Your task to perform on an android device: Open Youtube and go to the subscriptions tab Image 0: 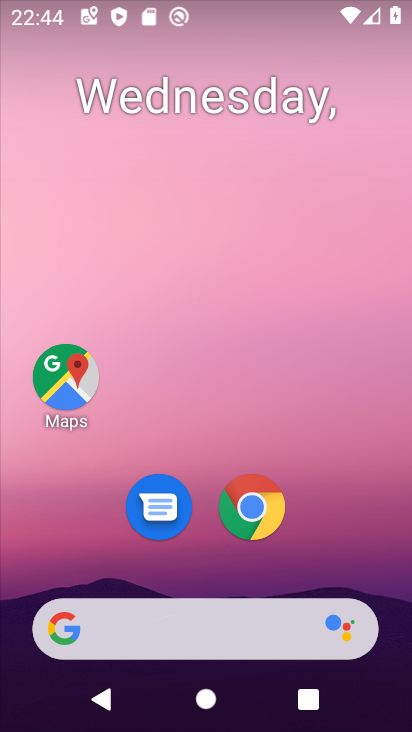
Step 0: drag from (327, 587) to (301, 171)
Your task to perform on an android device: Open Youtube and go to the subscriptions tab Image 1: 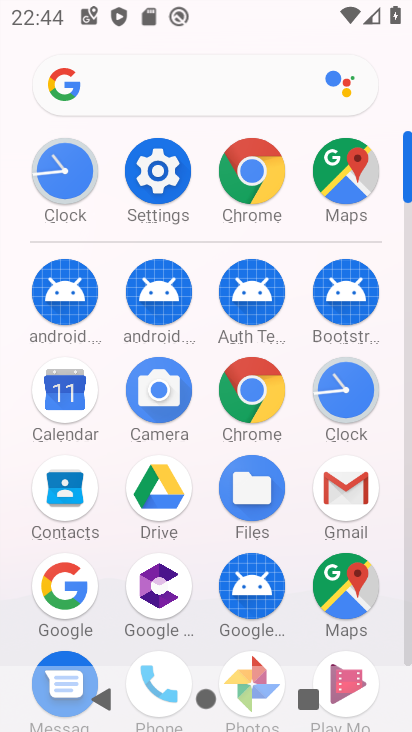
Step 1: drag from (283, 556) to (285, 114)
Your task to perform on an android device: Open Youtube and go to the subscriptions tab Image 2: 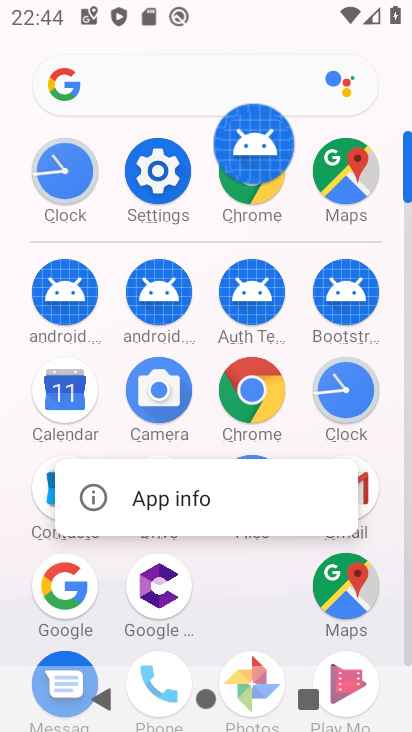
Step 2: drag from (226, 668) to (277, 216)
Your task to perform on an android device: Open Youtube and go to the subscriptions tab Image 3: 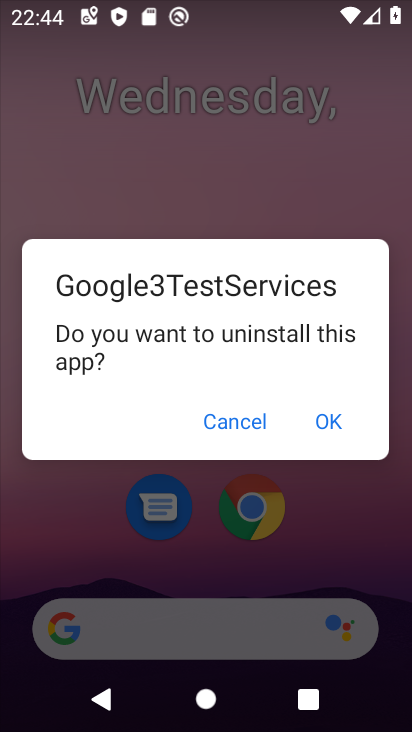
Step 3: drag from (294, 554) to (314, 214)
Your task to perform on an android device: Open Youtube and go to the subscriptions tab Image 4: 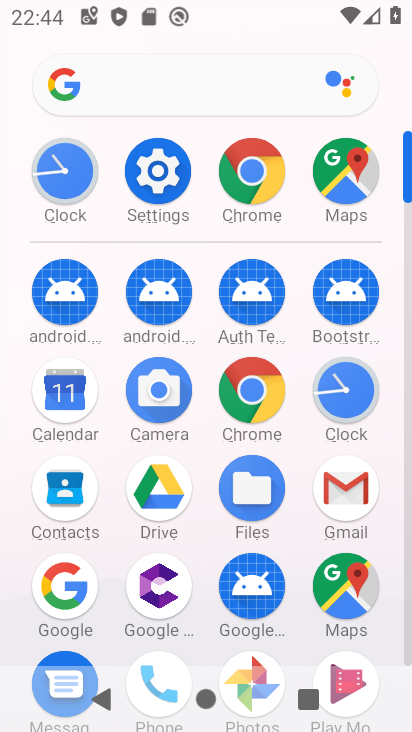
Step 4: drag from (222, 655) to (273, 186)
Your task to perform on an android device: Open Youtube and go to the subscriptions tab Image 5: 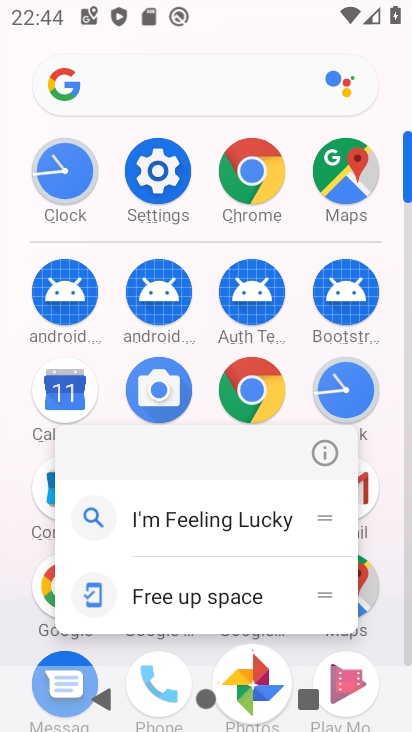
Step 5: drag from (253, 519) to (287, 237)
Your task to perform on an android device: Open Youtube and go to the subscriptions tab Image 6: 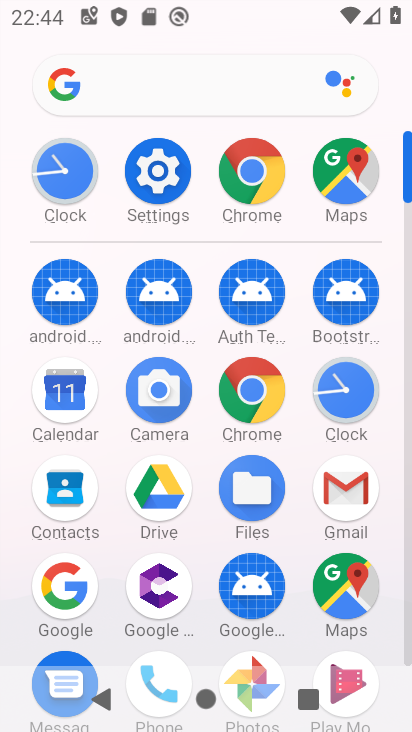
Step 6: drag from (250, 411) to (274, 175)
Your task to perform on an android device: Open Youtube and go to the subscriptions tab Image 7: 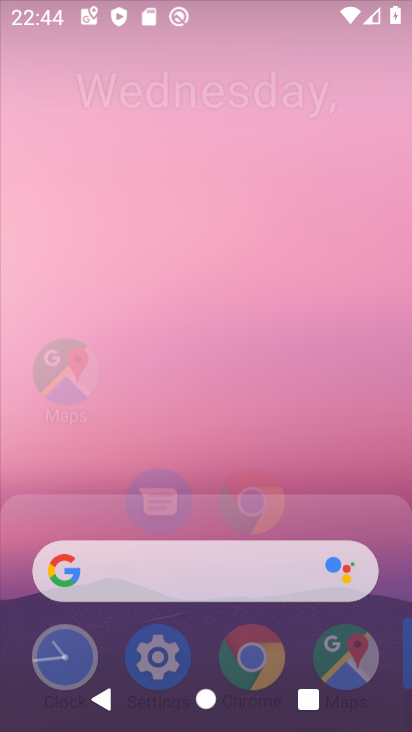
Step 7: drag from (277, 370) to (294, 174)
Your task to perform on an android device: Open Youtube and go to the subscriptions tab Image 8: 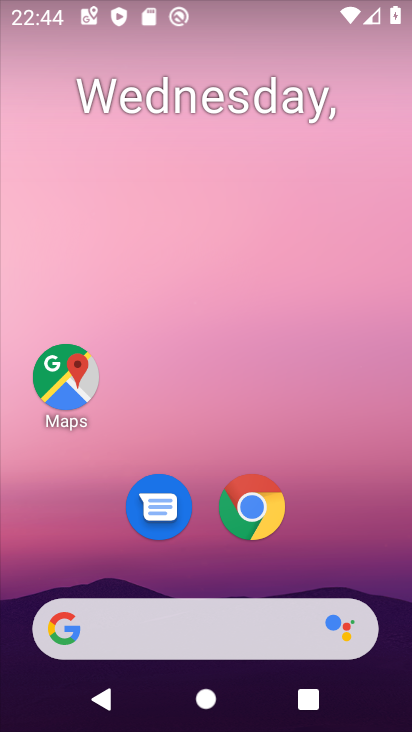
Step 8: drag from (276, 464) to (288, 189)
Your task to perform on an android device: Open Youtube and go to the subscriptions tab Image 9: 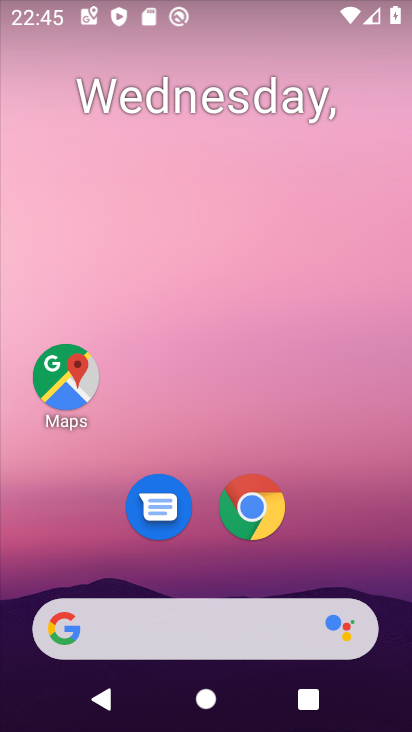
Step 9: drag from (294, 587) to (287, 84)
Your task to perform on an android device: Open Youtube and go to the subscriptions tab Image 10: 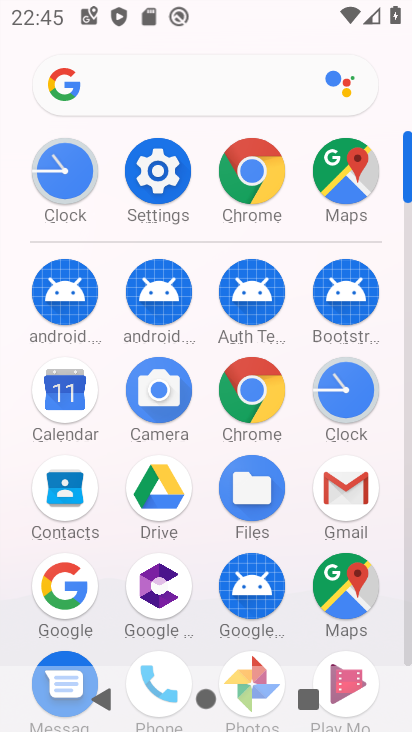
Step 10: drag from (267, 616) to (275, 157)
Your task to perform on an android device: Open Youtube and go to the subscriptions tab Image 11: 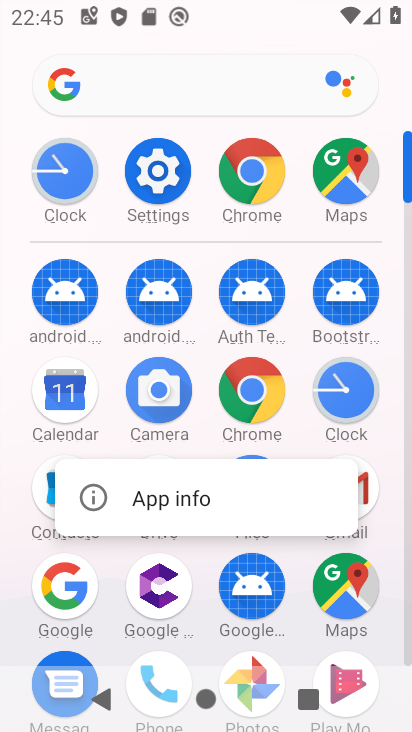
Step 11: drag from (257, 606) to (255, 189)
Your task to perform on an android device: Open Youtube and go to the subscriptions tab Image 12: 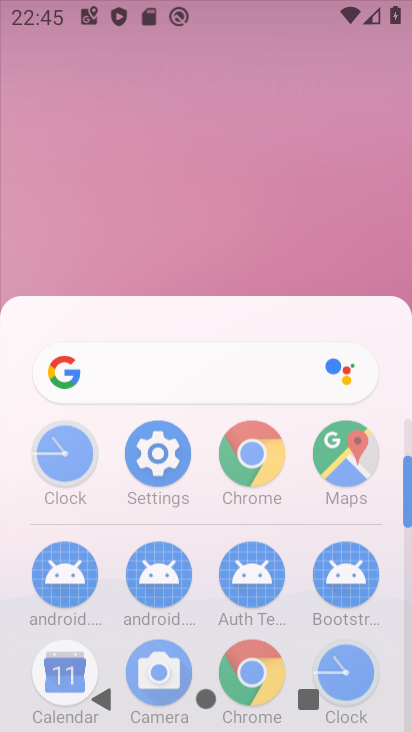
Step 12: drag from (296, 518) to (363, 186)
Your task to perform on an android device: Open Youtube and go to the subscriptions tab Image 13: 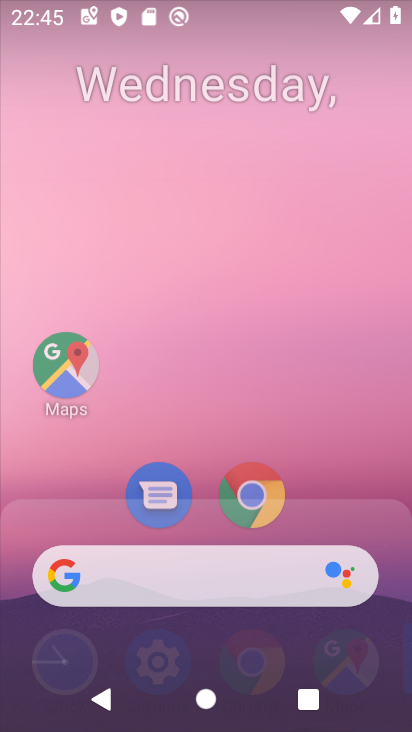
Step 13: drag from (288, 632) to (307, 267)
Your task to perform on an android device: Open Youtube and go to the subscriptions tab Image 14: 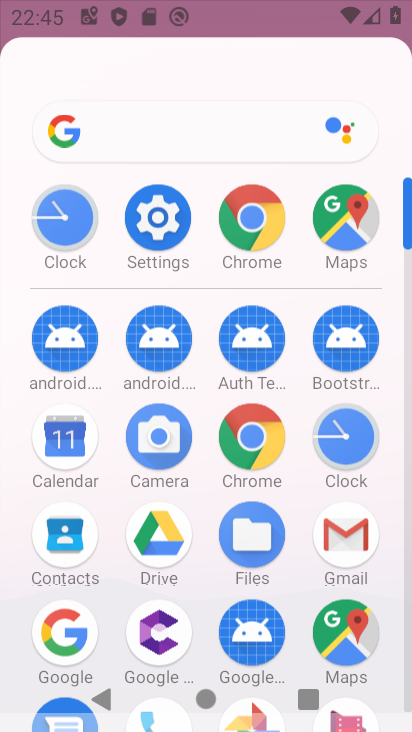
Step 14: drag from (231, 584) to (265, 189)
Your task to perform on an android device: Open Youtube and go to the subscriptions tab Image 15: 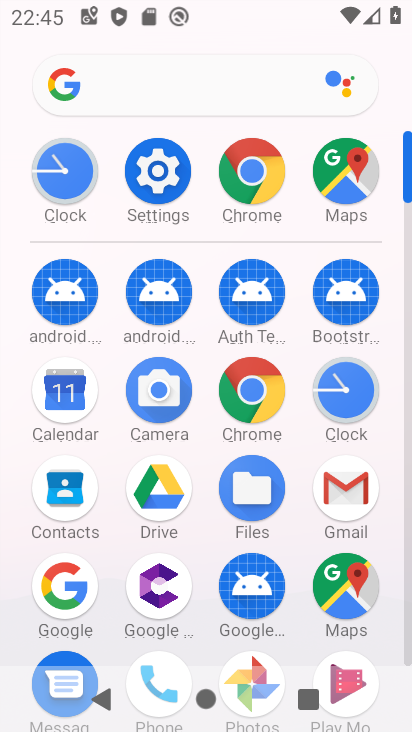
Step 15: drag from (230, 494) to (252, 316)
Your task to perform on an android device: Open Youtube and go to the subscriptions tab Image 16: 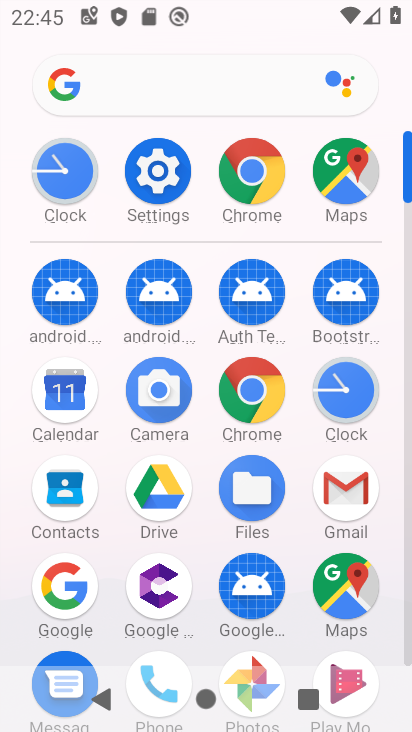
Step 16: drag from (212, 661) to (280, 251)
Your task to perform on an android device: Open Youtube and go to the subscriptions tab Image 17: 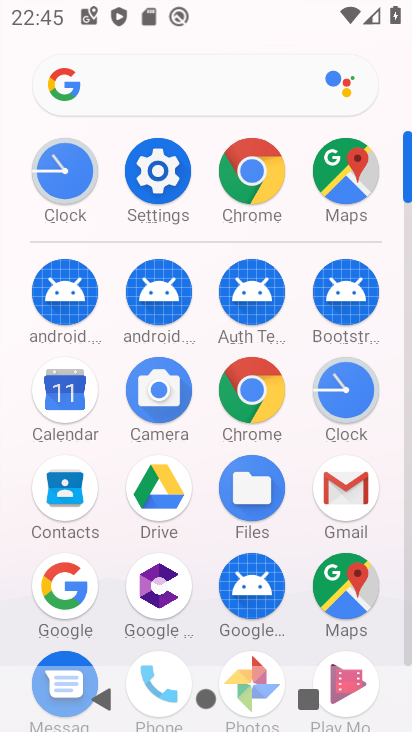
Step 17: drag from (196, 568) to (285, 246)
Your task to perform on an android device: Open Youtube and go to the subscriptions tab Image 18: 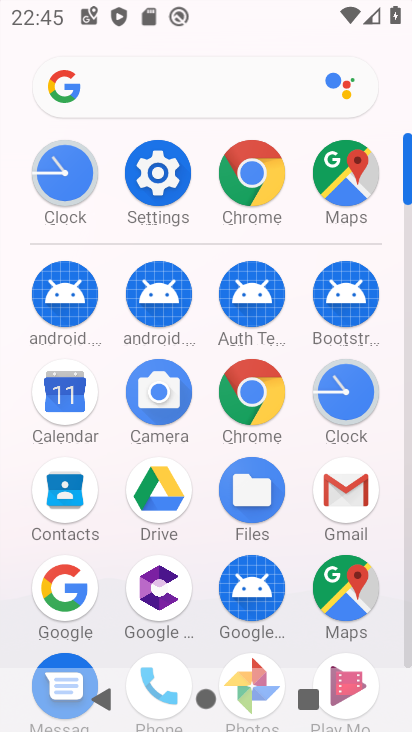
Step 18: drag from (292, 533) to (305, 176)
Your task to perform on an android device: Open Youtube and go to the subscriptions tab Image 19: 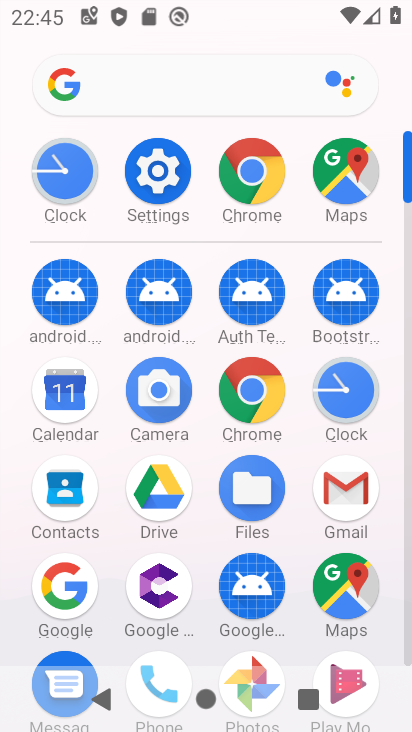
Step 19: drag from (260, 579) to (317, 185)
Your task to perform on an android device: Open Youtube and go to the subscriptions tab Image 20: 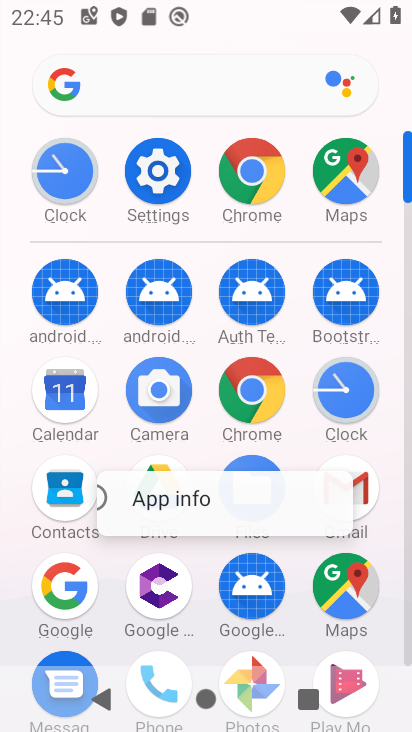
Step 20: drag from (301, 594) to (346, 204)
Your task to perform on an android device: Open Youtube and go to the subscriptions tab Image 21: 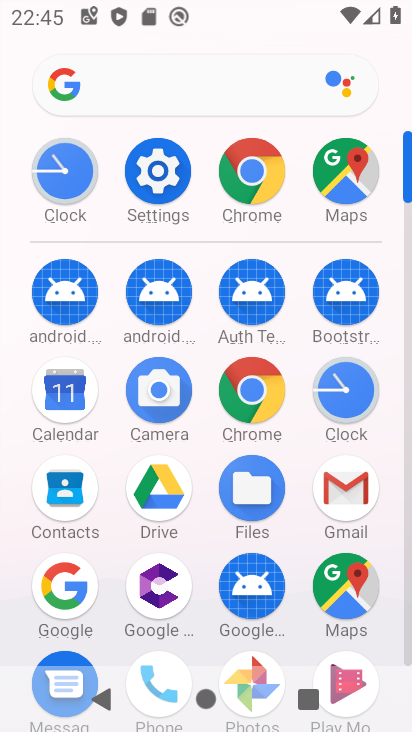
Step 21: drag from (313, 400) to (308, 232)
Your task to perform on an android device: Open Youtube and go to the subscriptions tab Image 22: 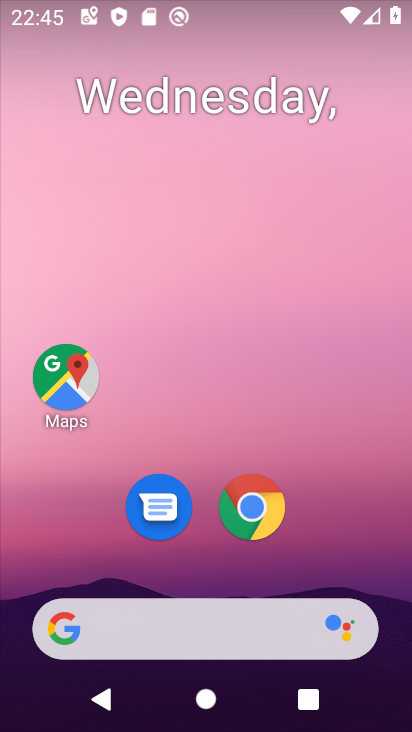
Step 22: drag from (288, 575) to (306, 276)
Your task to perform on an android device: Open Youtube and go to the subscriptions tab Image 23: 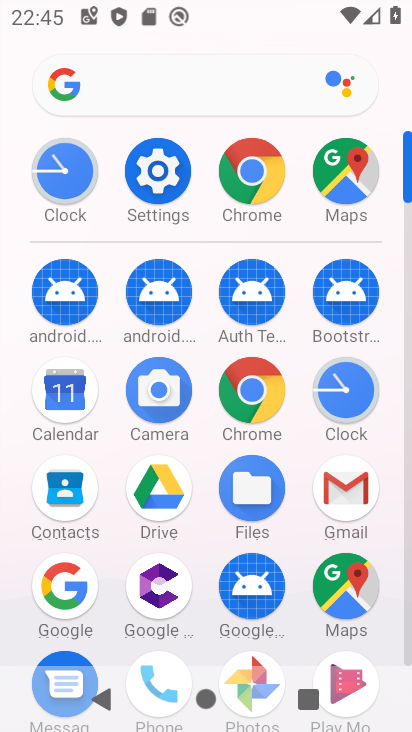
Step 23: drag from (262, 430) to (339, 374)
Your task to perform on an android device: Open Youtube and go to the subscriptions tab Image 24: 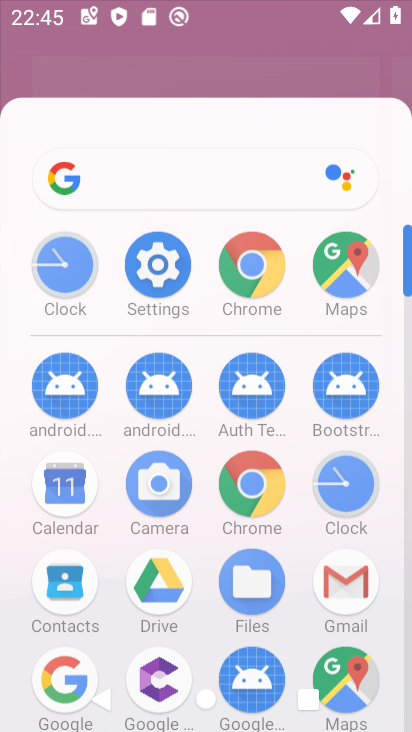
Step 24: click (385, 361)
Your task to perform on an android device: Open Youtube and go to the subscriptions tab Image 25: 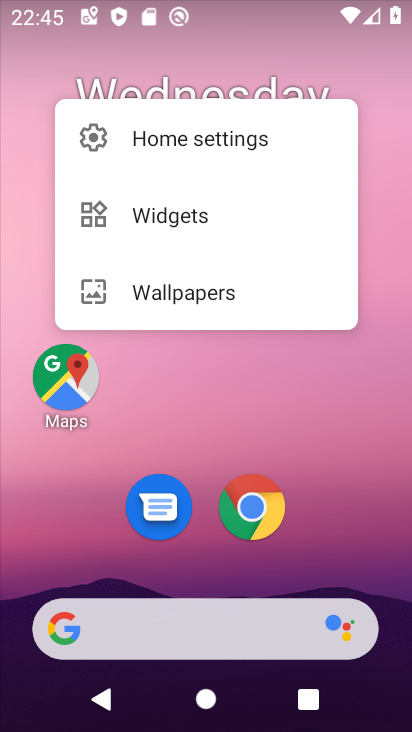
Step 25: task complete